Your task to perform on an android device: open app "Walmart Shopping & Grocery" Image 0: 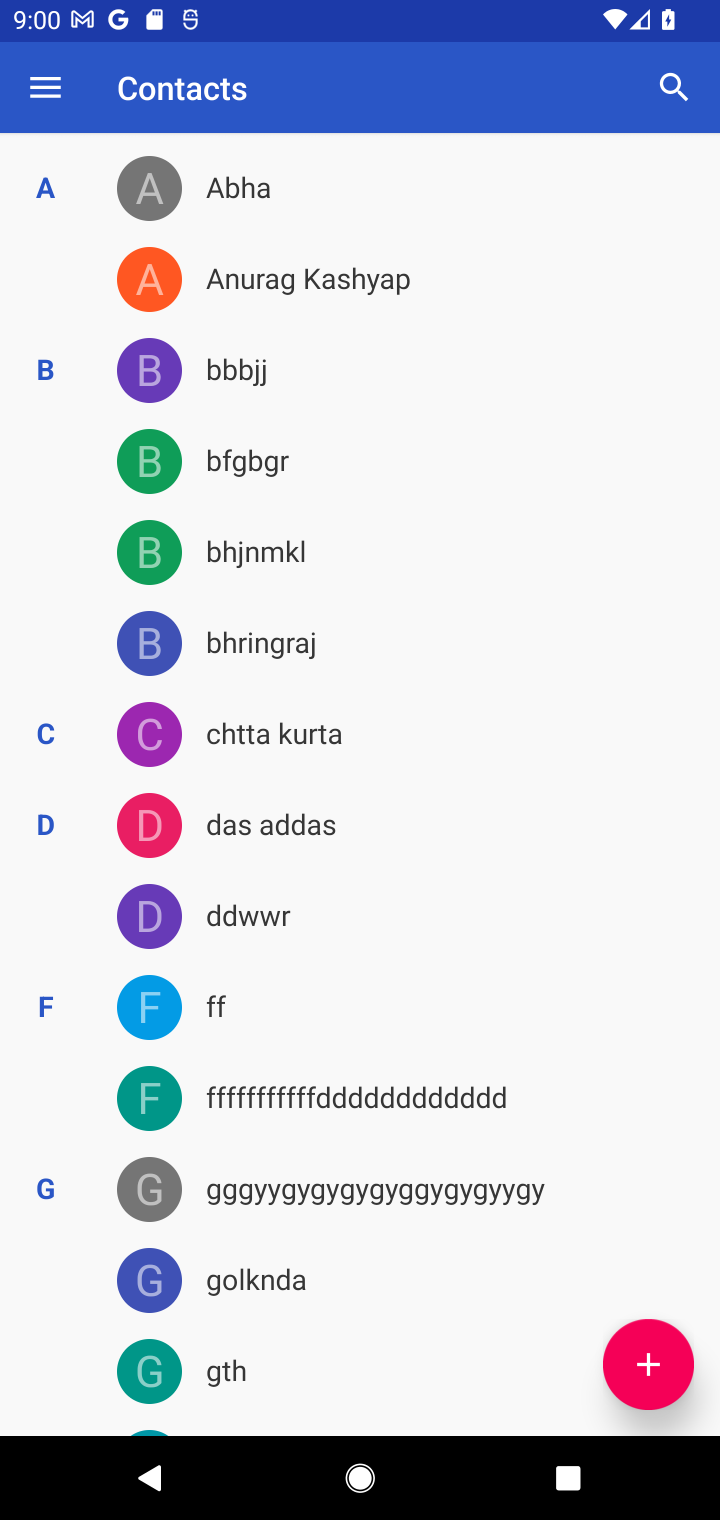
Step 0: press home button
Your task to perform on an android device: open app "Walmart Shopping & Grocery" Image 1: 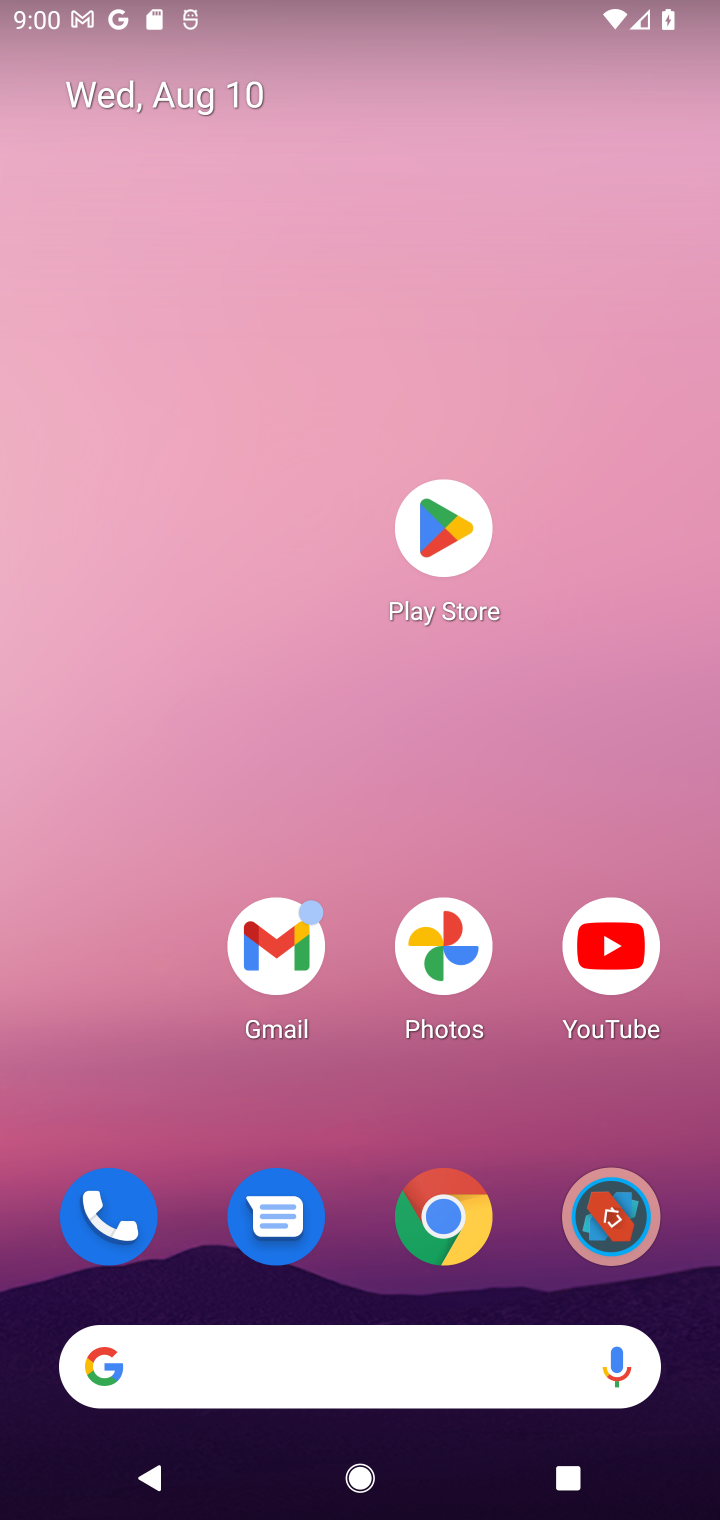
Step 1: click (661, 1028)
Your task to perform on an android device: open app "Walmart Shopping & Grocery" Image 2: 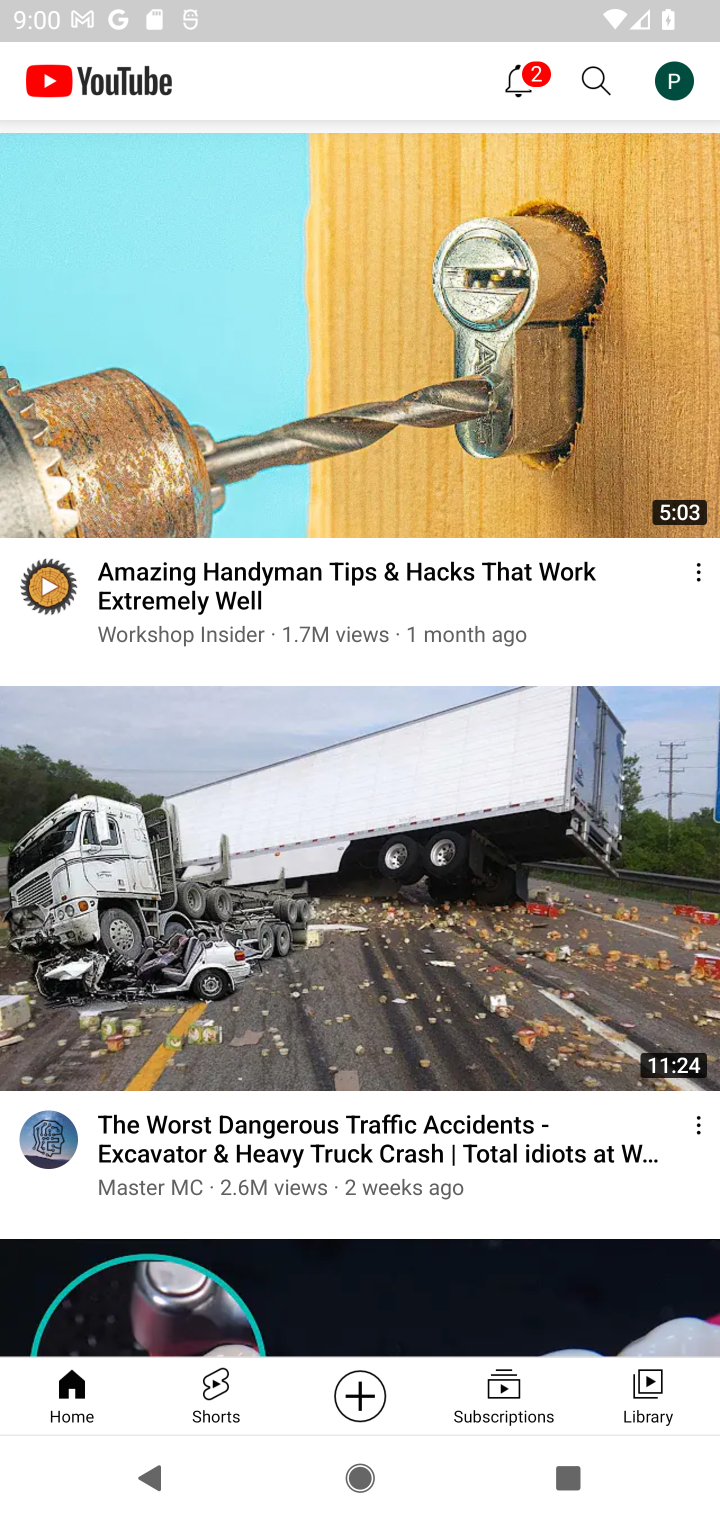
Step 2: click (419, 538)
Your task to perform on an android device: open app "Walmart Shopping & Grocery" Image 3: 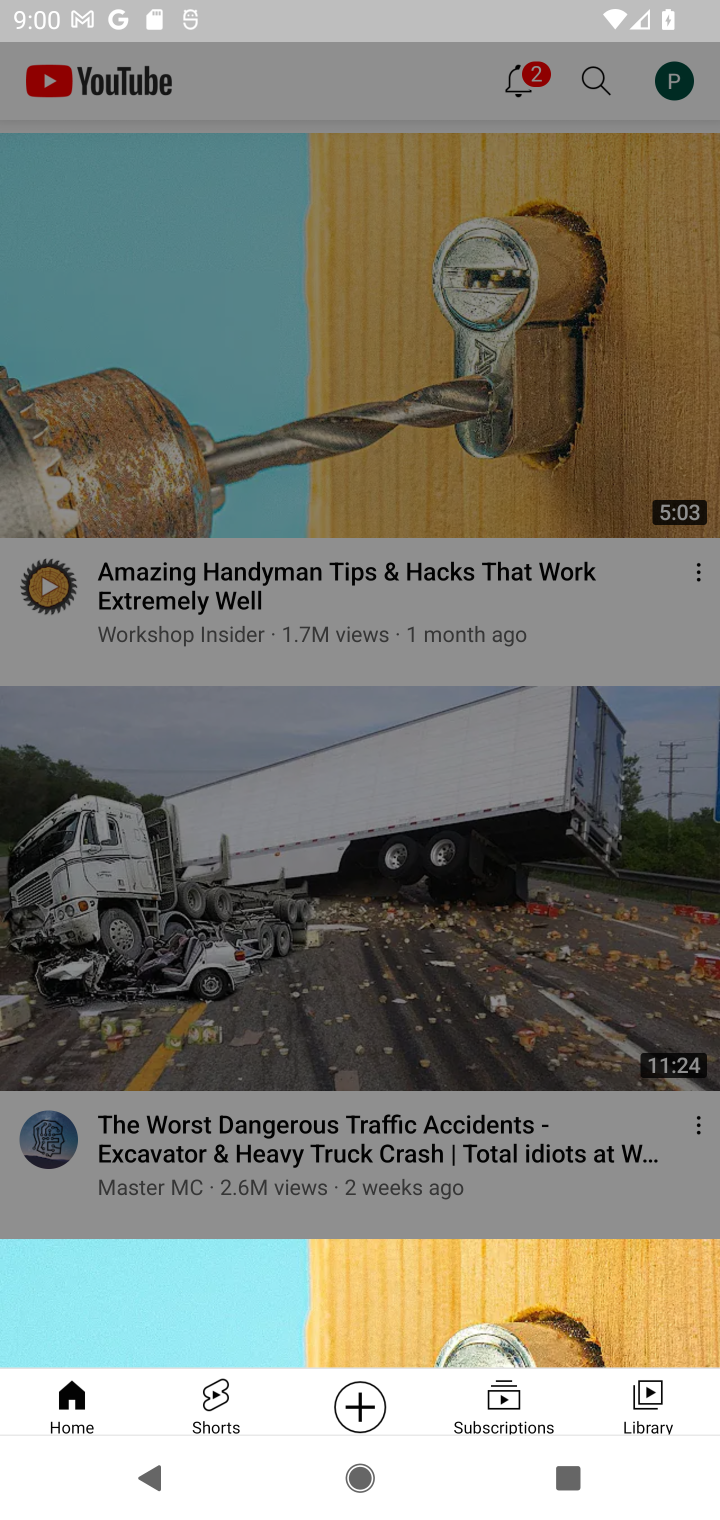
Step 3: press home button
Your task to perform on an android device: open app "Walmart Shopping & Grocery" Image 4: 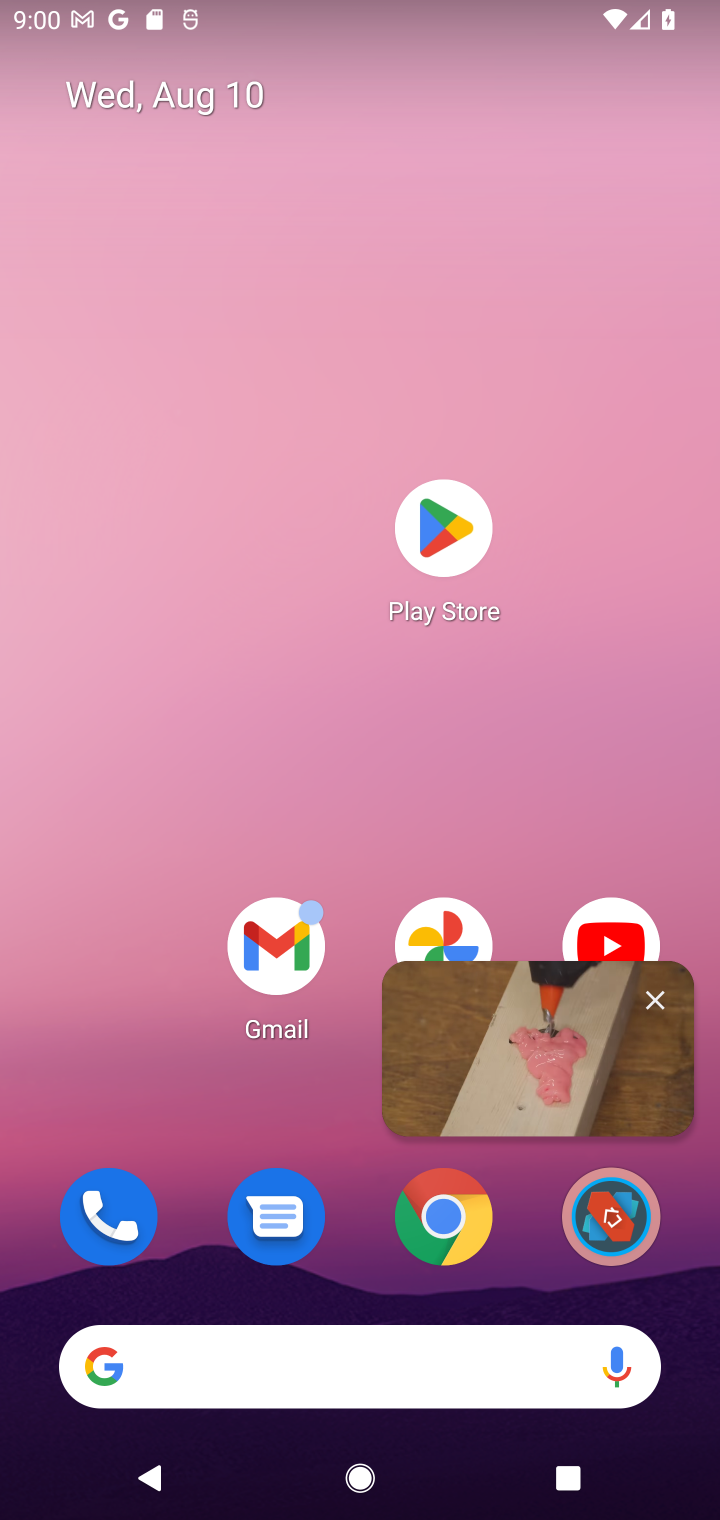
Step 4: click (656, 1004)
Your task to perform on an android device: open app "Walmart Shopping & Grocery" Image 5: 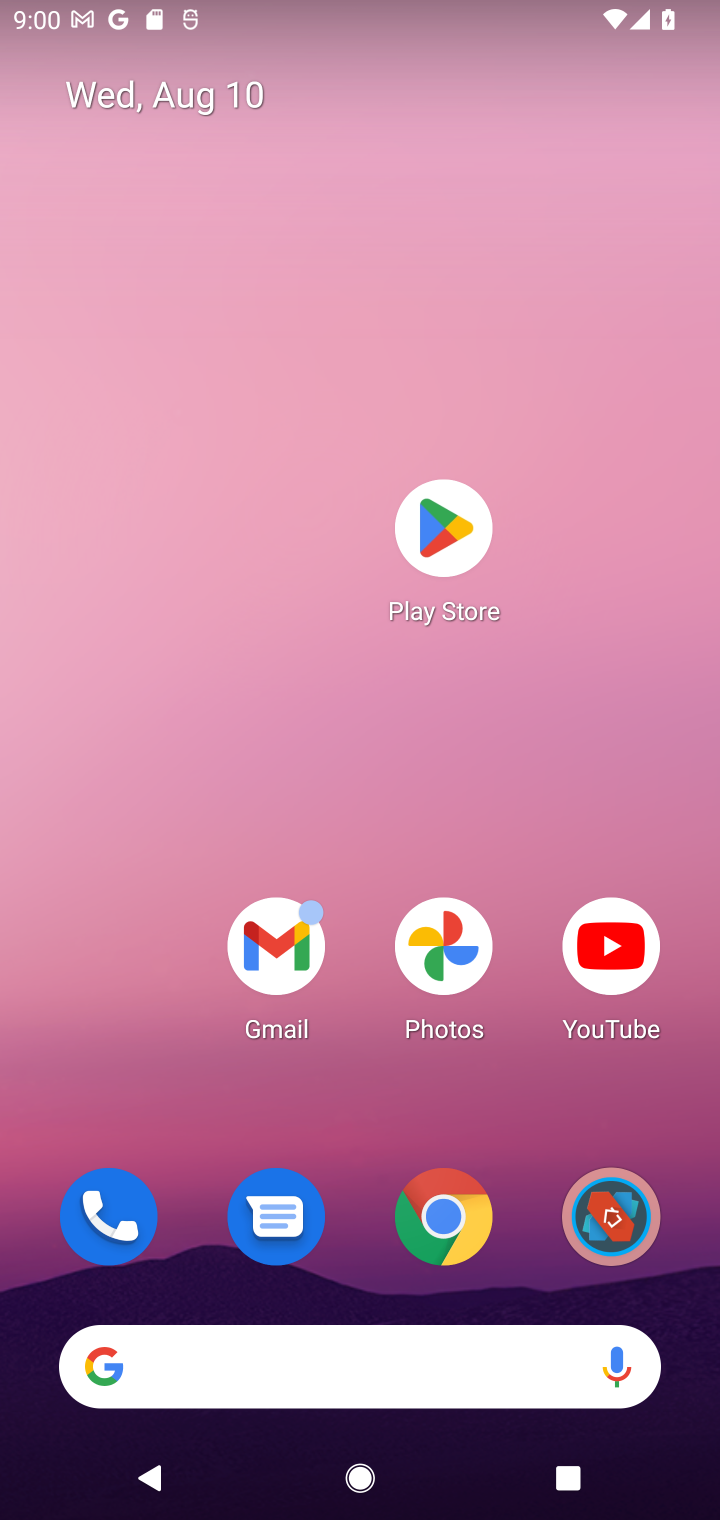
Step 5: click (441, 525)
Your task to perform on an android device: open app "Walmart Shopping & Grocery" Image 6: 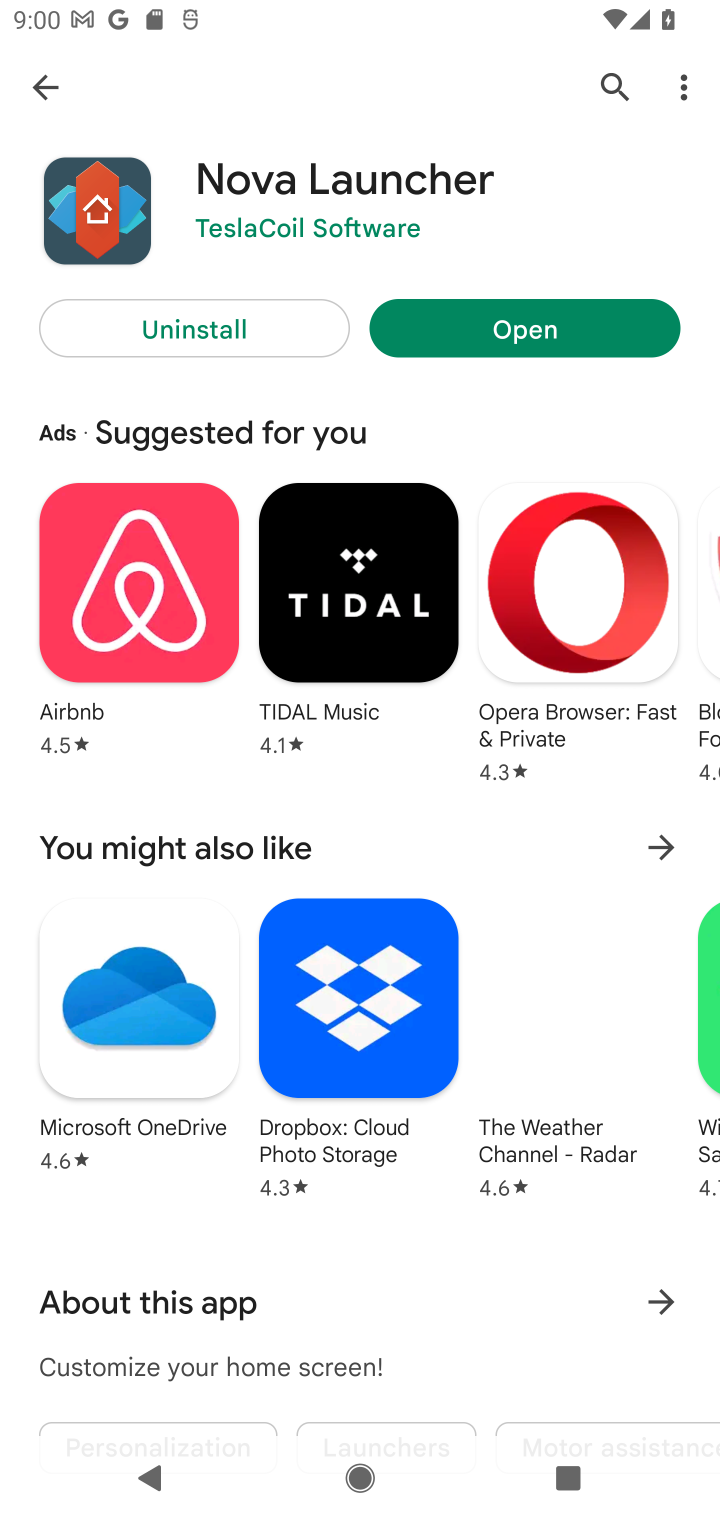
Step 6: click (609, 73)
Your task to perform on an android device: open app "Walmart Shopping & Grocery" Image 7: 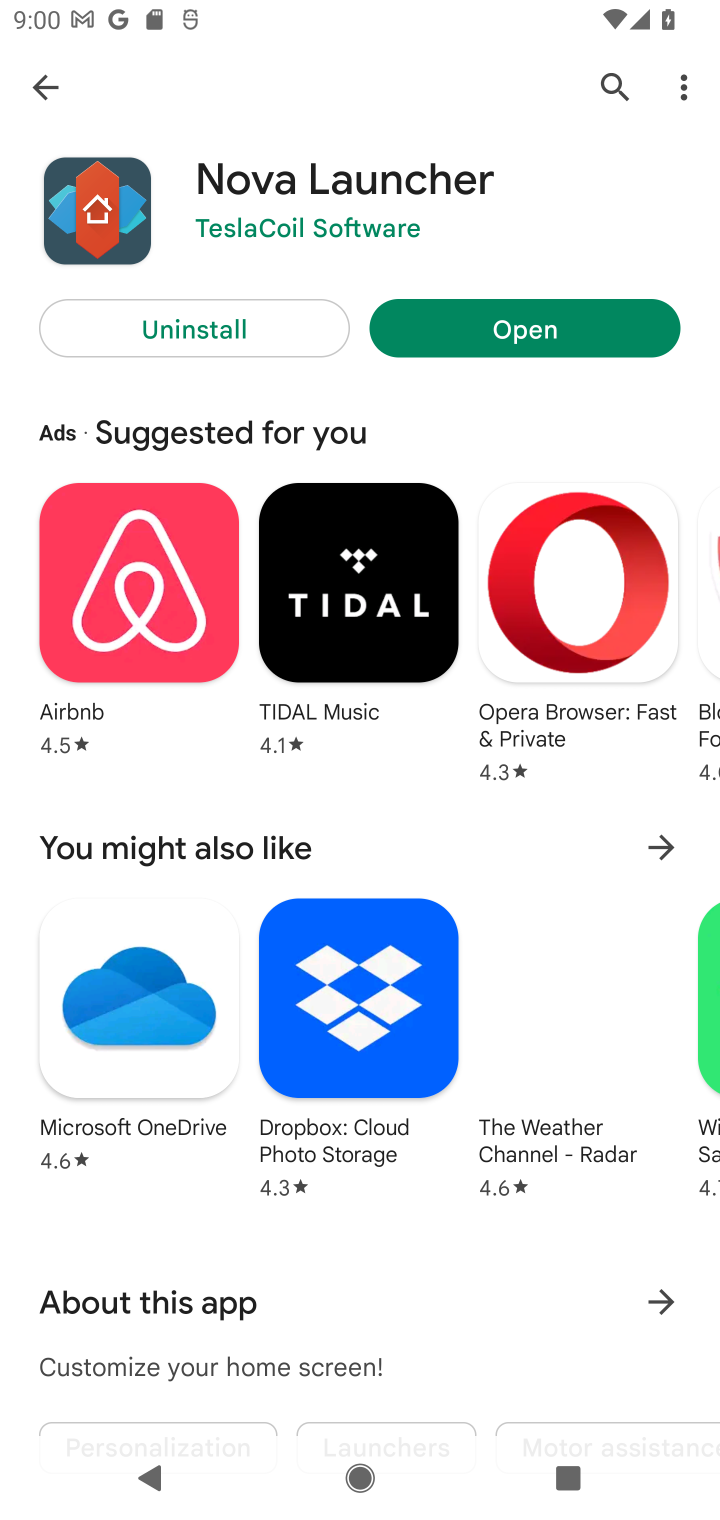
Step 7: click (604, 87)
Your task to perform on an android device: open app "Walmart Shopping & Grocery" Image 8: 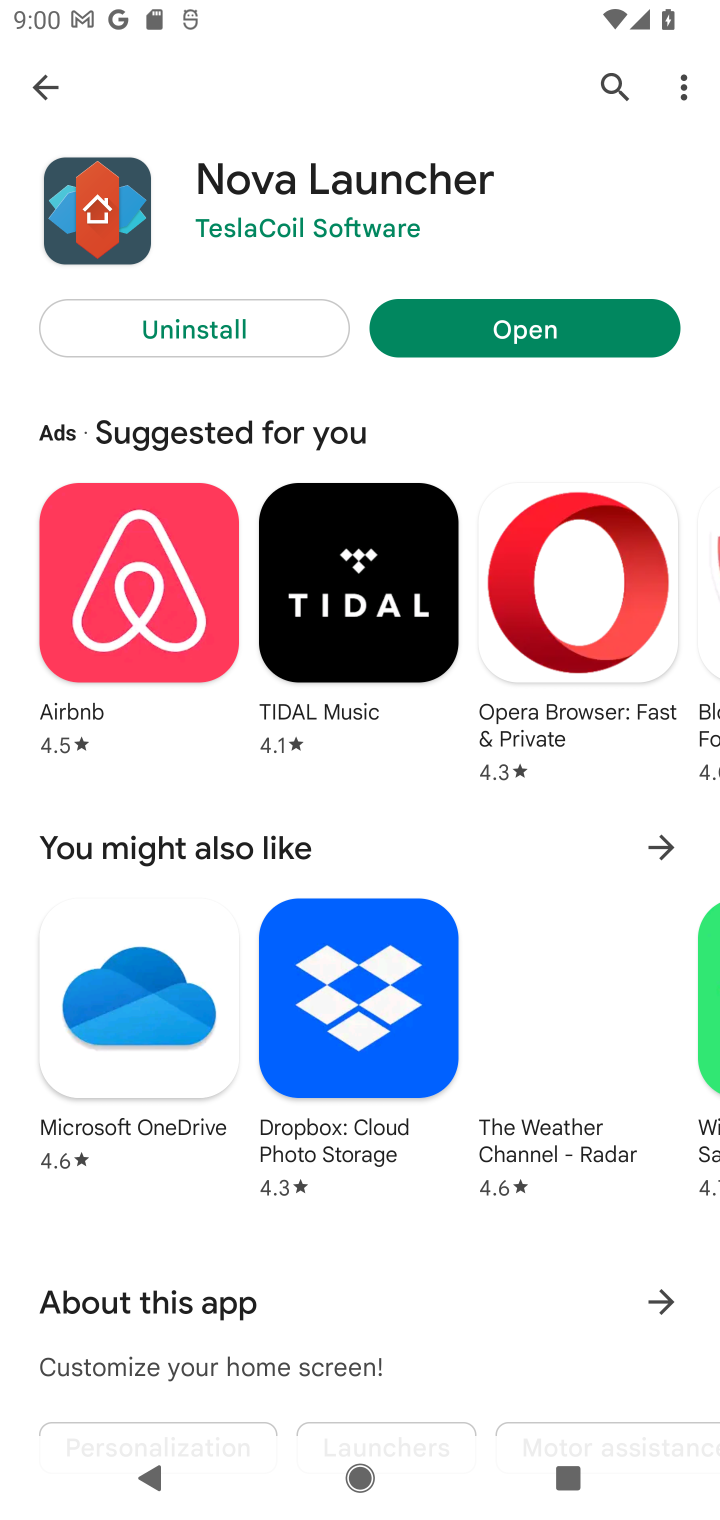
Step 8: click (604, 86)
Your task to perform on an android device: open app "Walmart Shopping & Grocery" Image 9: 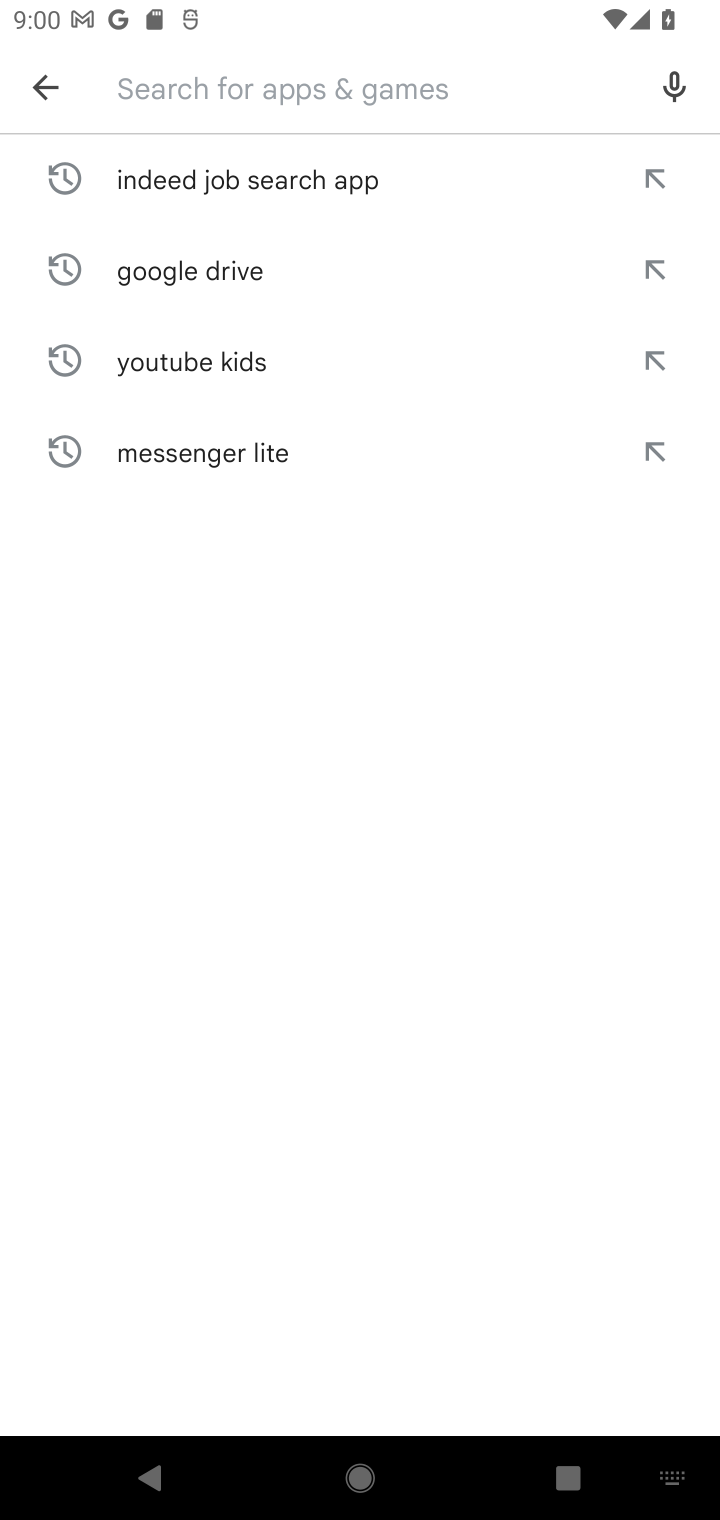
Step 9: click (617, 1506)
Your task to perform on an android device: open app "Walmart Shopping & Grocery" Image 10: 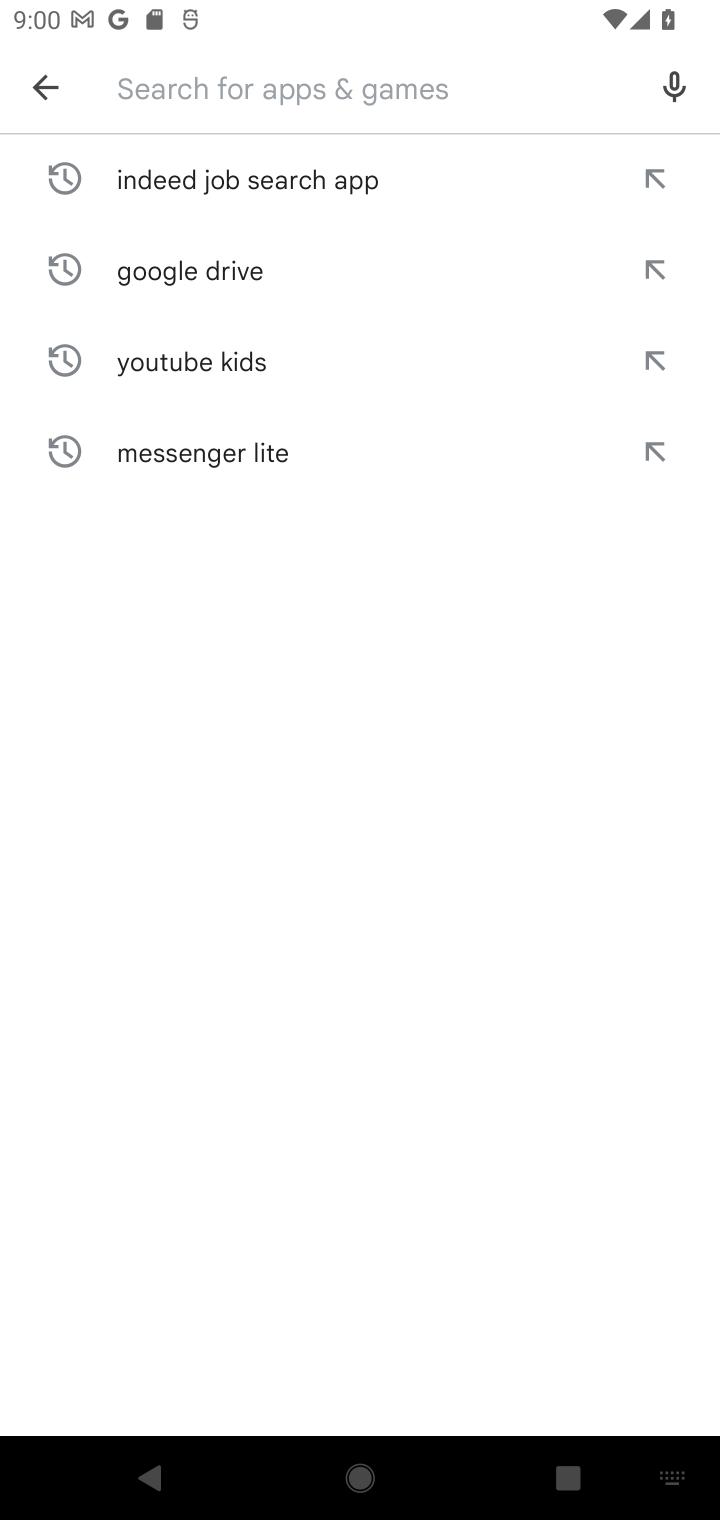
Step 10: type "Walmart Shopping & Grocery"
Your task to perform on an android device: open app "Walmart Shopping & Grocery" Image 11: 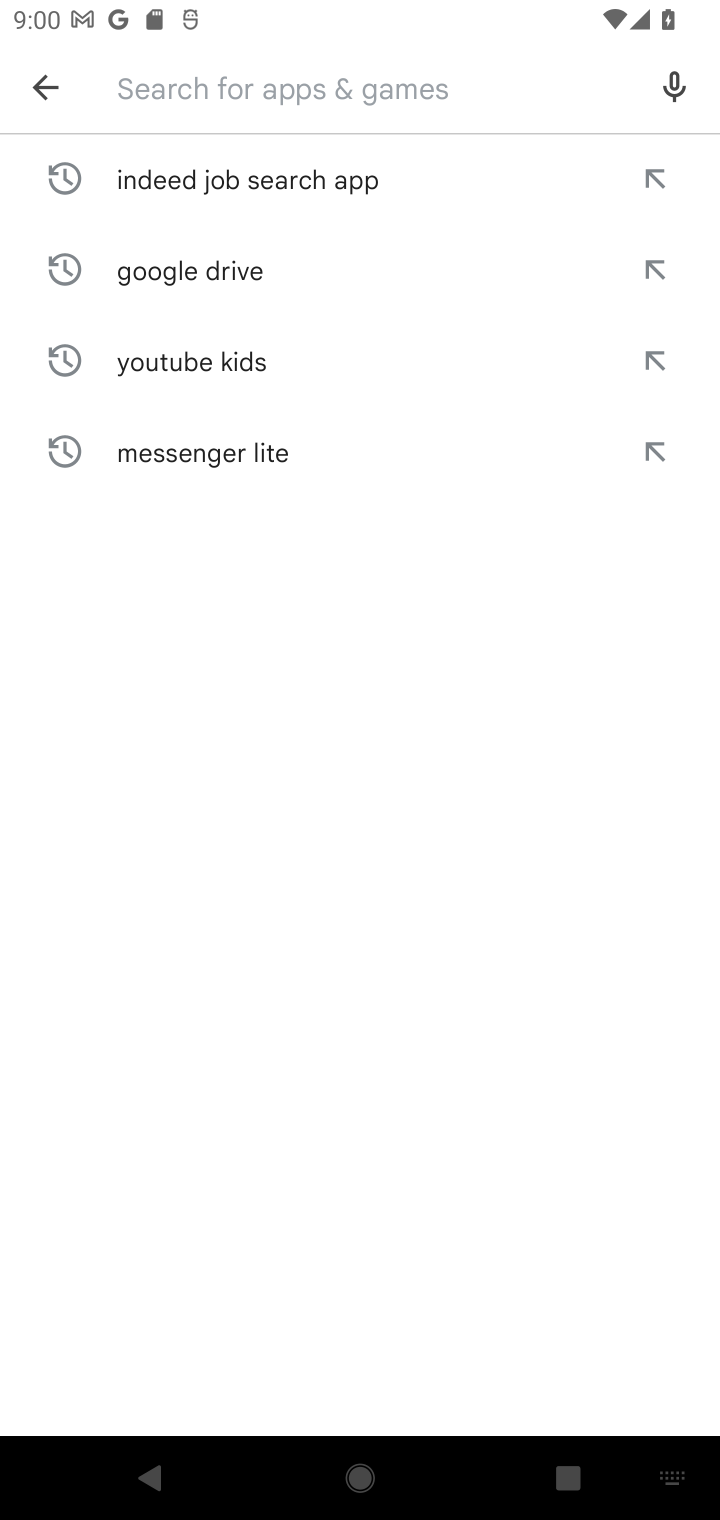
Step 11: drag from (660, 1518) to (669, 741)
Your task to perform on an android device: open app "Walmart Shopping & Grocery" Image 12: 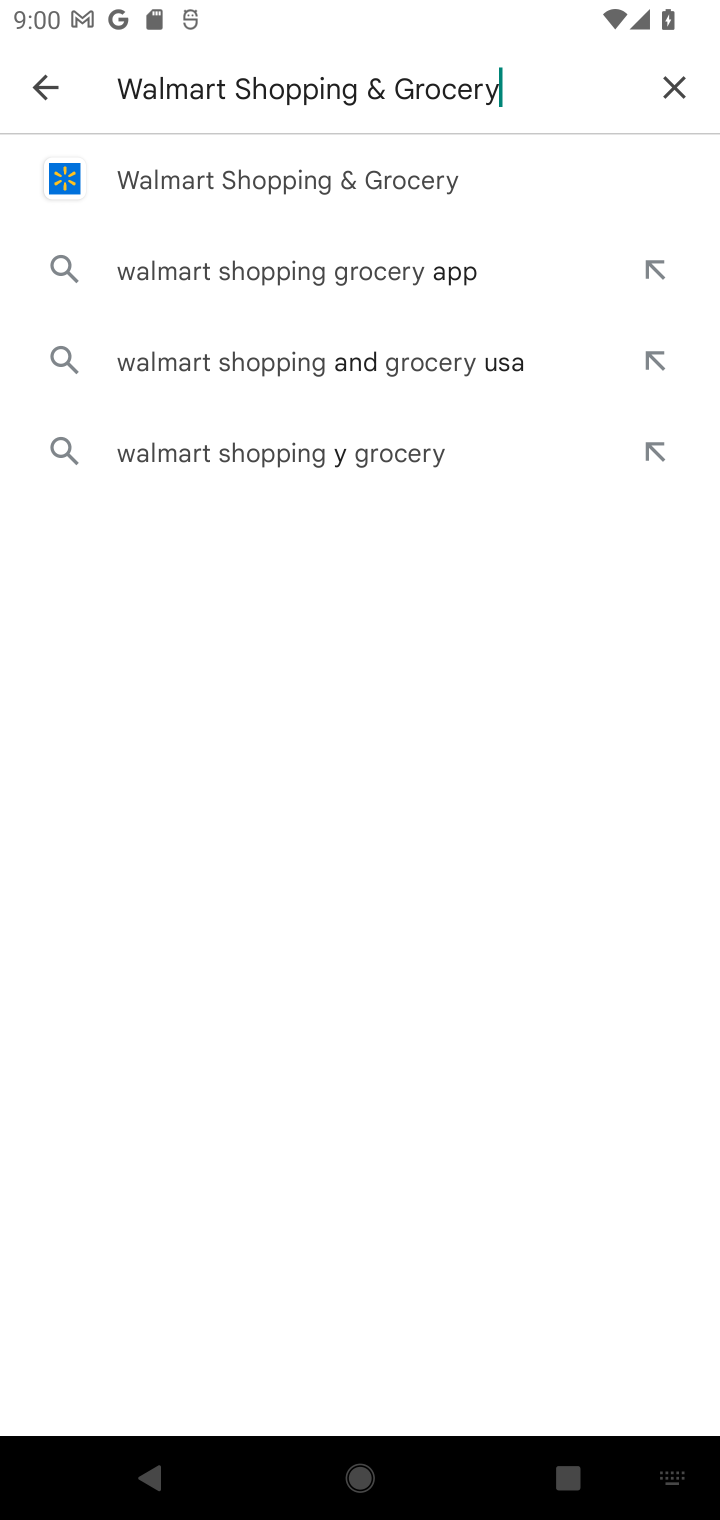
Step 12: click (198, 183)
Your task to perform on an android device: open app "Walmart Shopping & Grocery" Image 13: 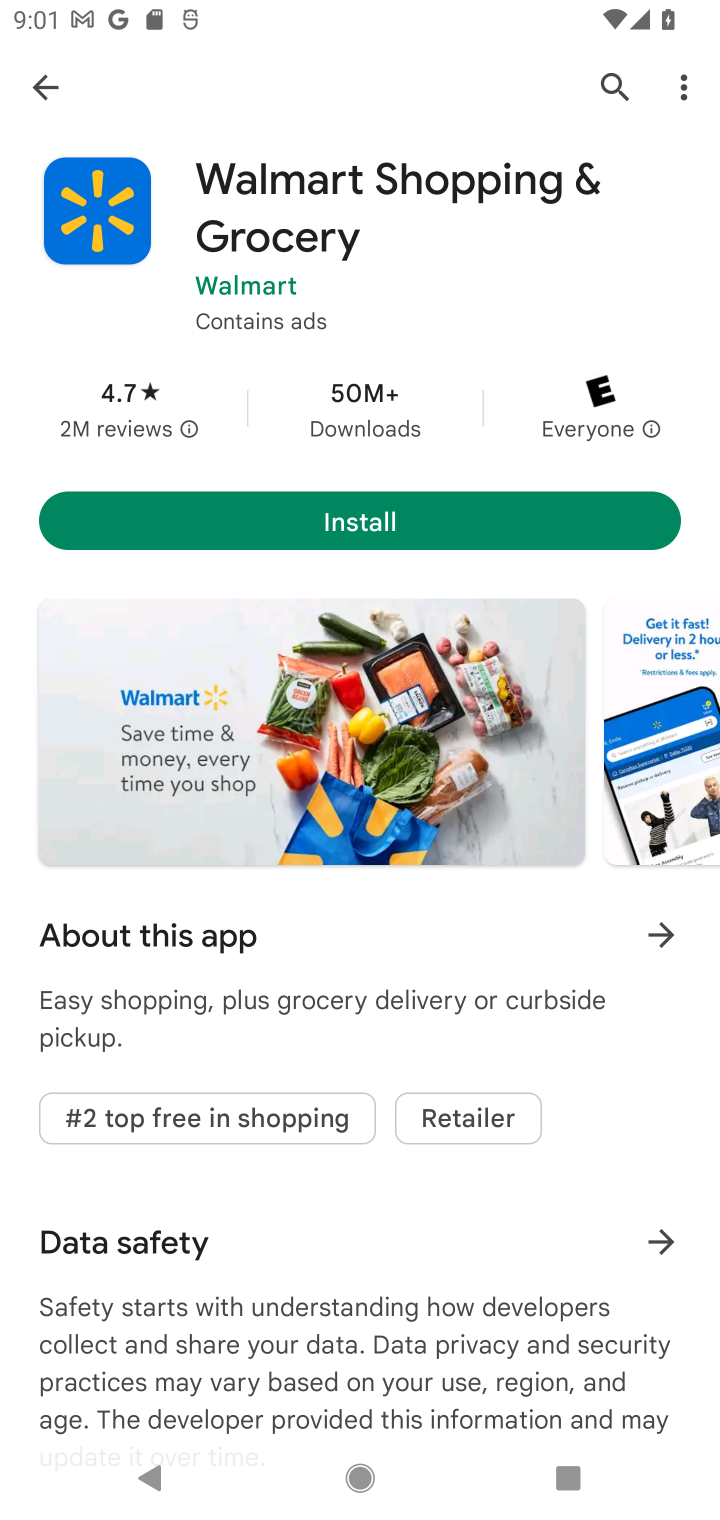
Step 13: task complete